Your task to perform on an android device: choose inbox layout in the gmail app Image 0: 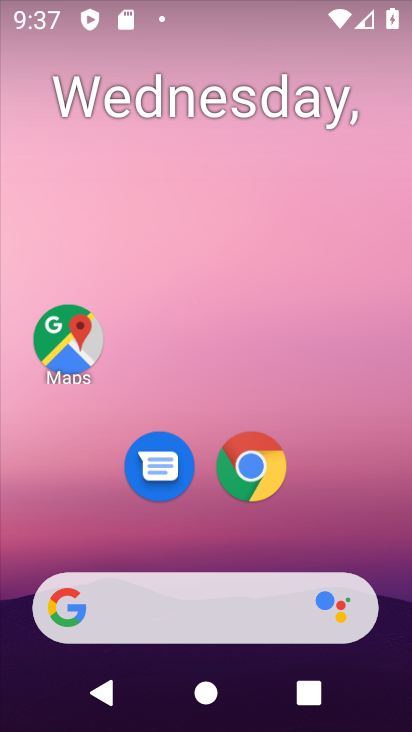
Step 0: drag from (315, 566) to (183, 182)
Your task to perform on an android device: choose inbox layout in the gmail app Image 1: 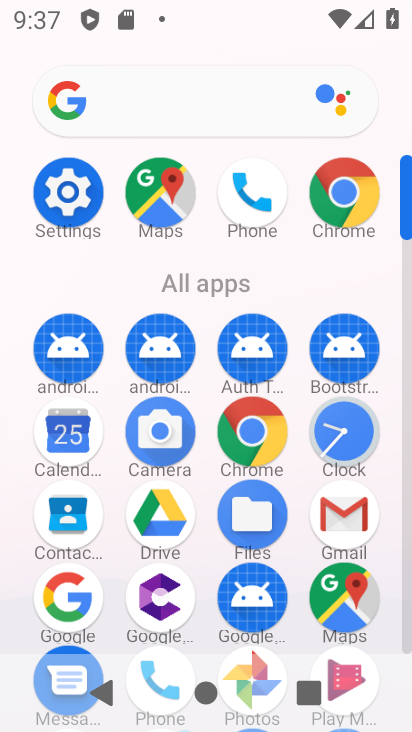
Step 1: click (348, 547)
Your task to perform on an android device: choose inbox layout in the gmail app Image 2: 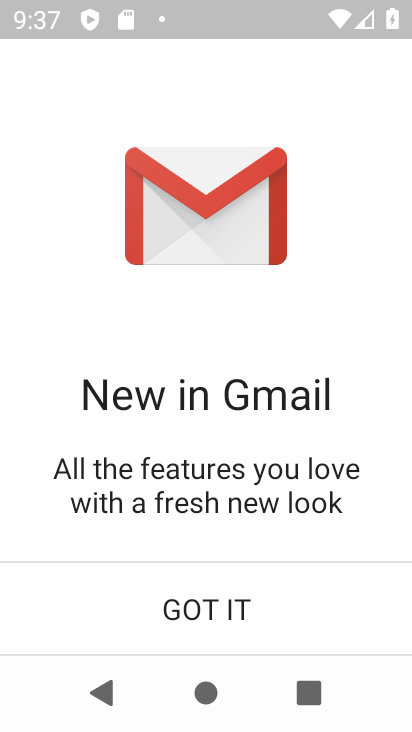
Step 2: click (198, 603)
Your task to perform on an android device: choose inbox layout in the gmail app Image 3: 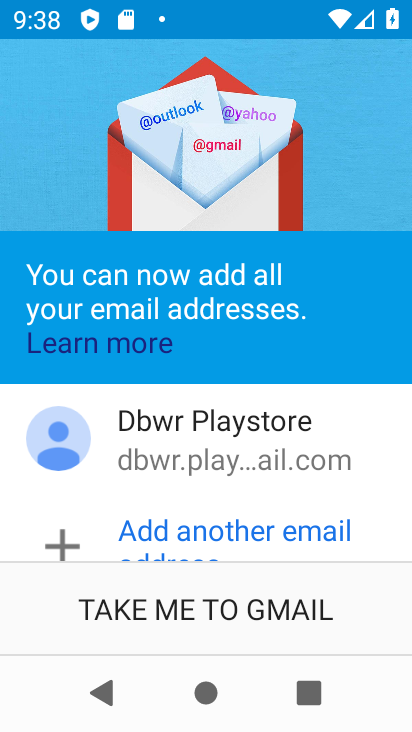
Step 3: click (198, 603)
Your task to perform on an android device: choose inbox layout in the gmail app Image 4: 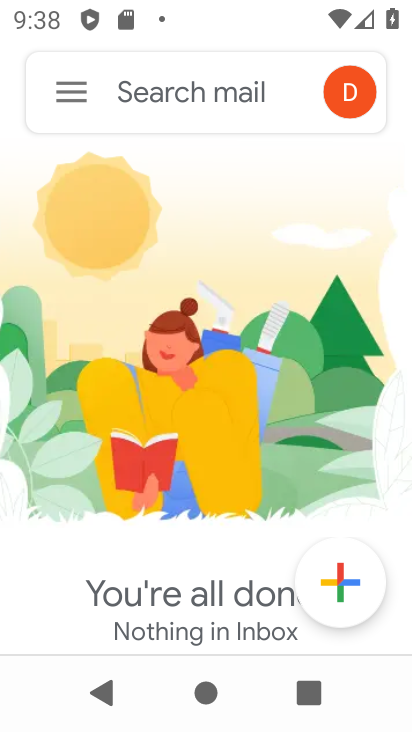
Step 4: click (76, 102)
Your task to perform on an android device: choose inbox layout in the gmail app Image 5: 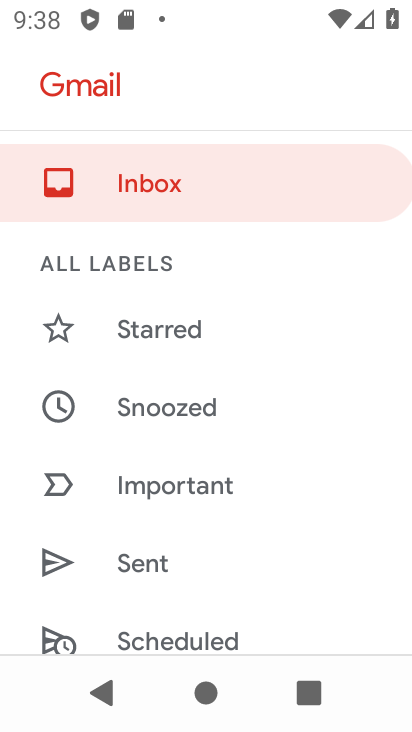
Step 5: click (135, 186)
Your task to perform on an android device: choose inbox layout in the gmail app Image 6: 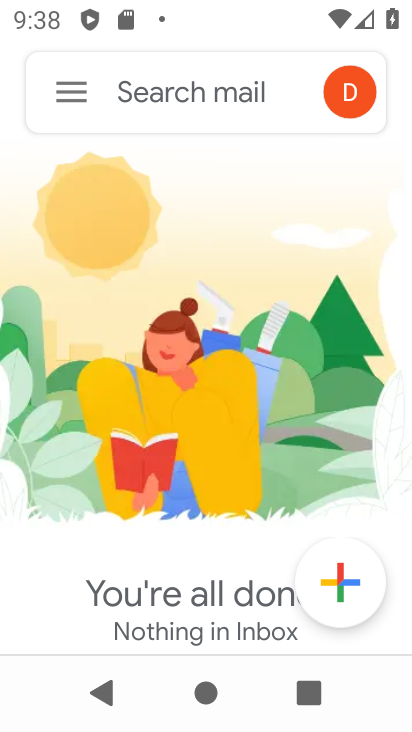
Step 6: task complete